Your task to perform on an android device: toggle data saver in the chrome app Image 0: 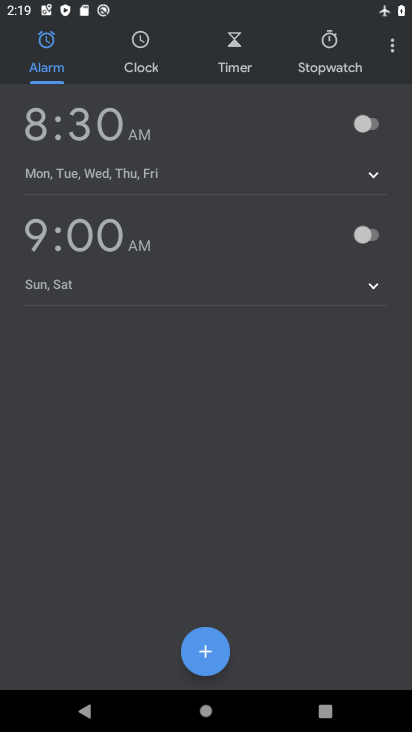
Step 0: press home button
Your task to perform on an android device: toggle data saver in the chrome app Image 1: 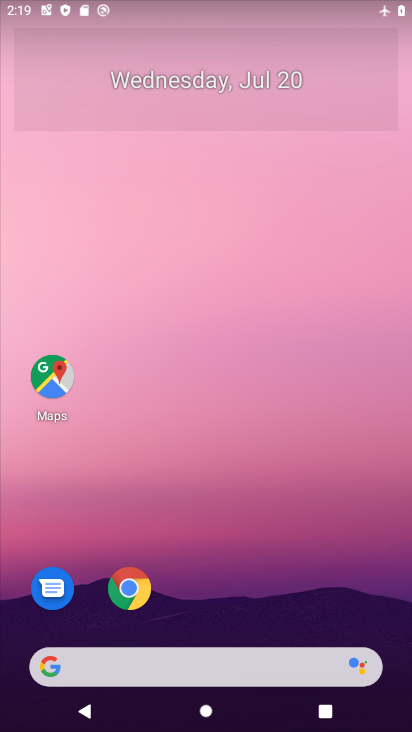
Step 1: drag from (305, 572) to (262, 8)
Your task to perform on an android device: toggle data saver in the chrome app Image 2: 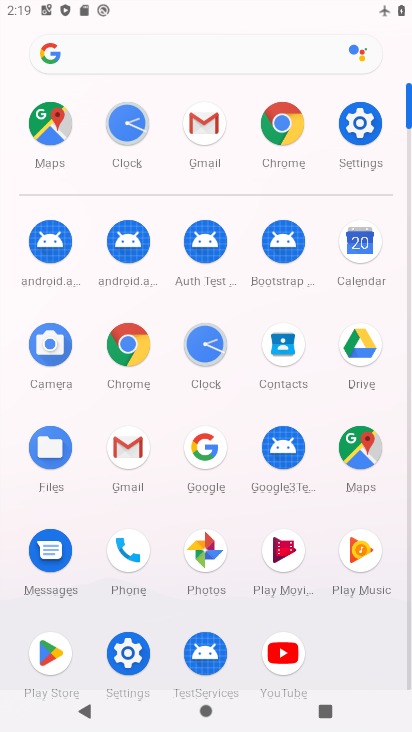
Step 2: click (354, 130)
Your task to perform on an android device: toggle data saver in the chrome app Image 3: 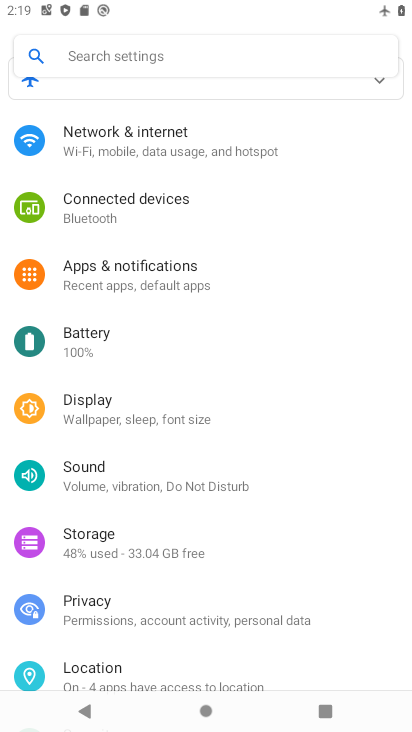
Step 3: drag from (315, 182) to (328, 636)
Your task to perform on an android device: toggle data saver in the chrome app Image 4: 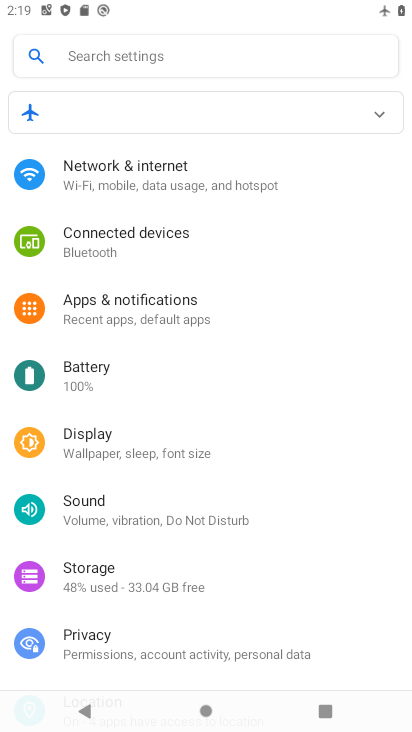
Step 4: click (126, 181)
Your task to perform on an android device: toggle data saver in the chrome app Image 5: 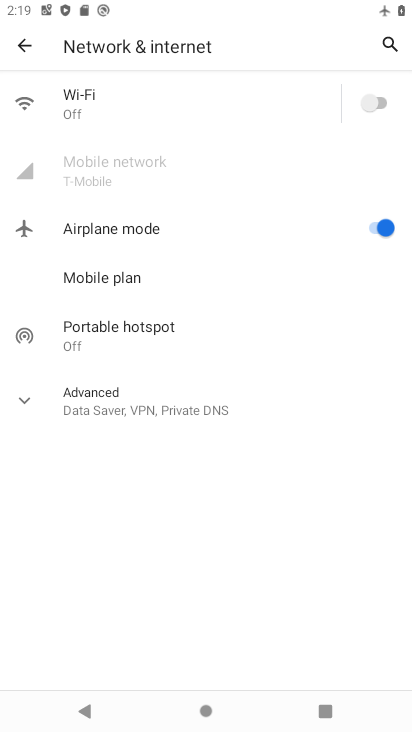
Step 5: click (370, 233)
Your task to perform on an android device: toggle data saver in the chrome app Image 6: 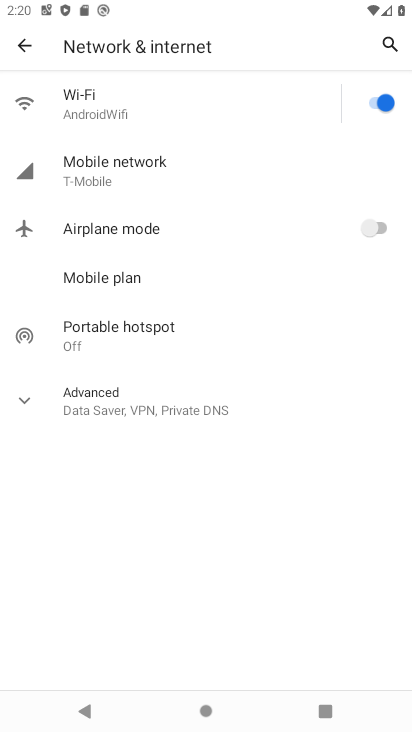
Step 6: task complete